Your task to perform on an android device: Open Yahoo.com Image 0: 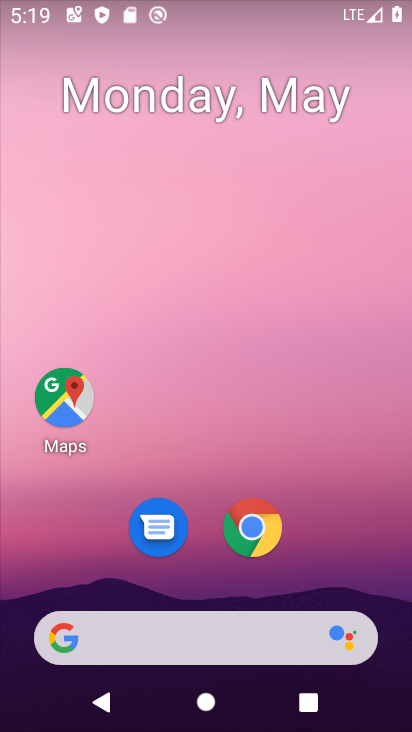
Step 0: click (262, 529)
Your task to perform on an android device: Open Yahoo.com Image 1: 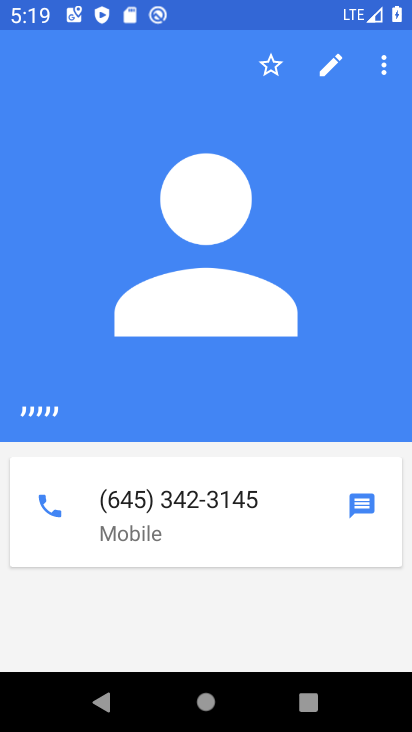
Step 1: press home button
Your task to perform on an android device: Open Yahoo.com Image 2: 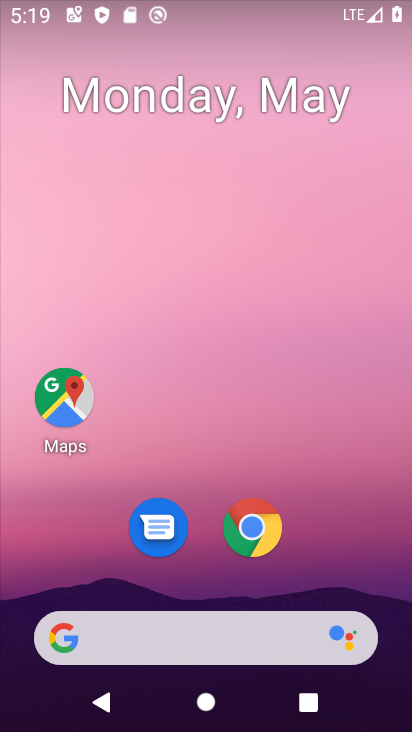
Step 2: click (250, 521)
Your task to perform on an android device: Open Yahoo.com Image 3: 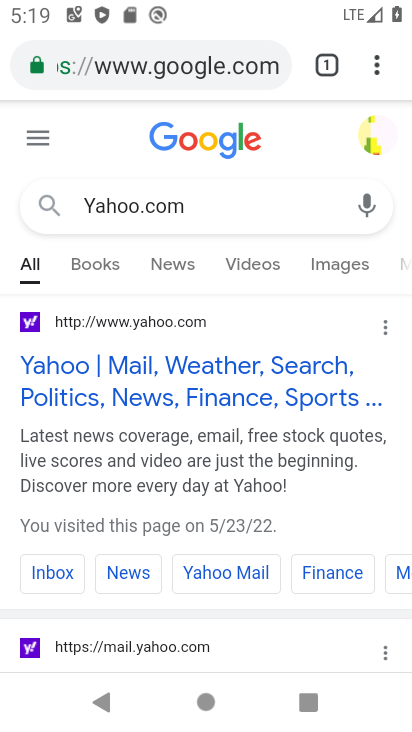
Step 3: task complete